Your task to perform on an android device: Open CNN.com Image 0: 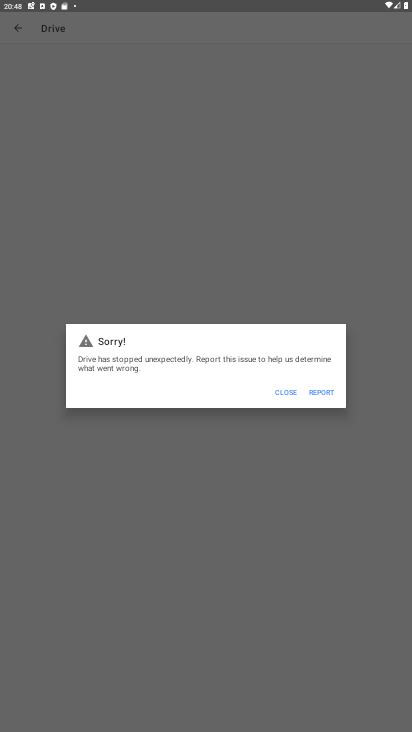
Step 0: press home button
Your task to perform on an android device: Open CNN.com Image 1: 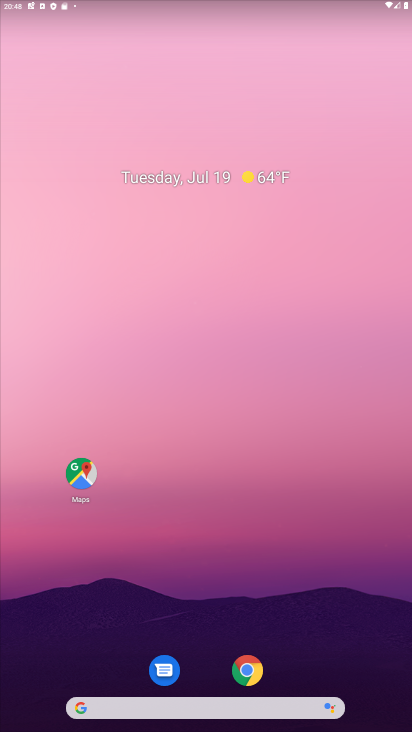
Step 1: click (172, 716)
Your task to perform on an android device: Open CNN.com Image 2: 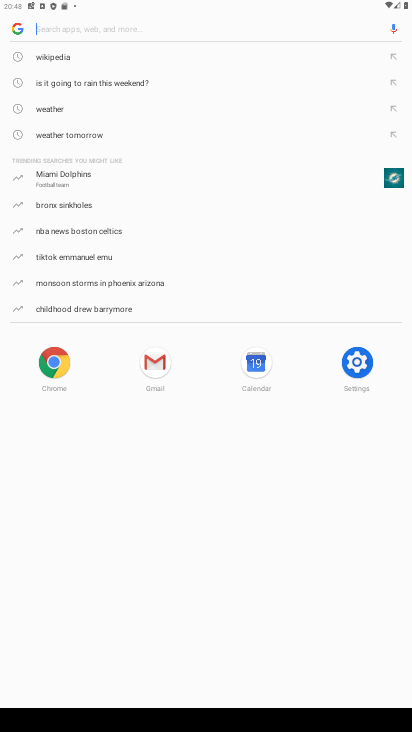
Step 2: type "cnn.com"
Your task to perform on an android device: Open CNN.com Image 3: 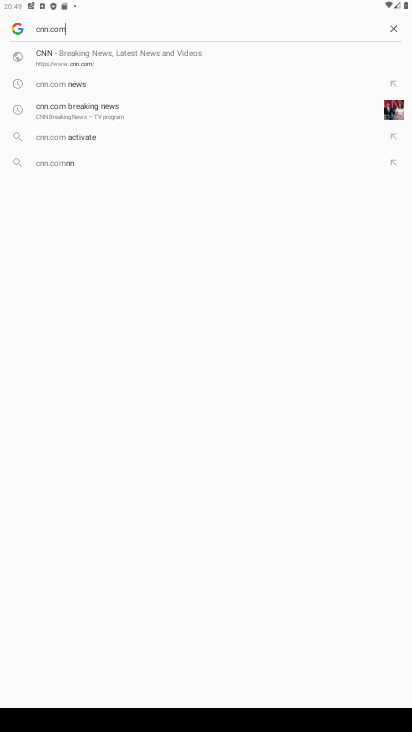
Step 3: click (76, 66)
Your task to perform on an android device: Open CNN.com Image 4: 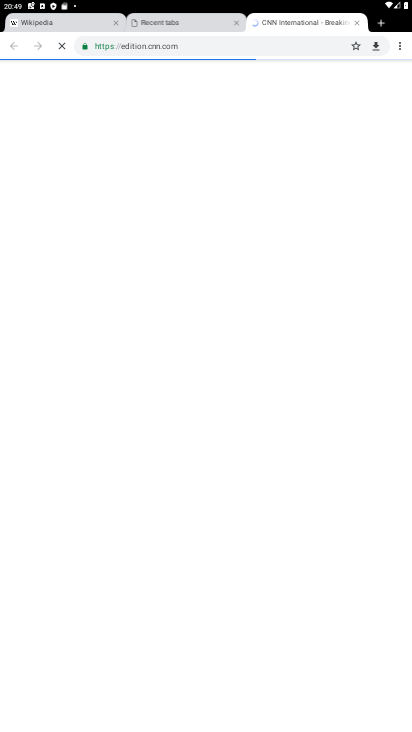
Step 4: task complete